Your task to perform on an android device: check out phone information Image 0: 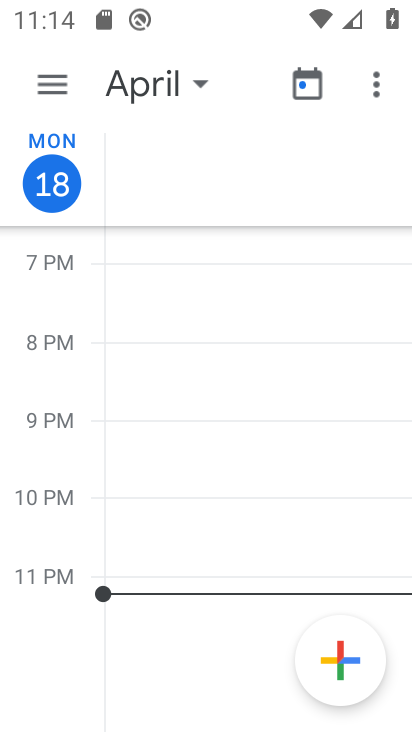
Step 0: press home button
Your task to perform on an android device: check out phone information Image 1: 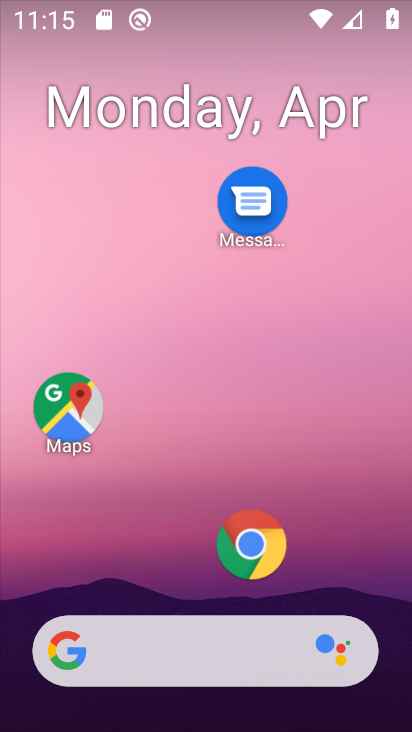
Step 1: drag from (185, 588) to (198, 63)
Your task to perform on an android device: check out phone information Image 2: 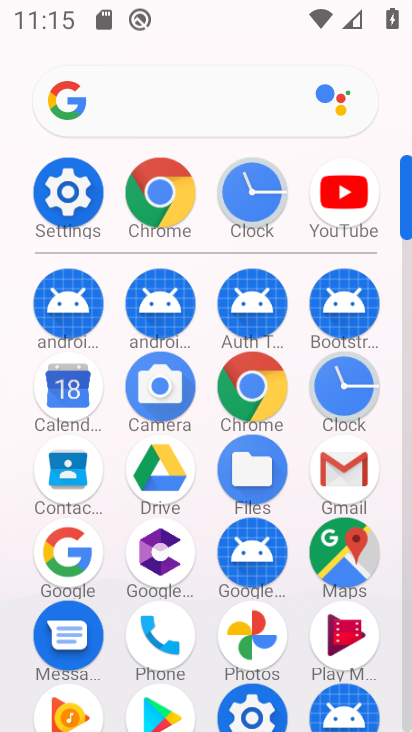
Step 2: click (251, 708)
Your task to perform on an android device: check out phone information Image 3: 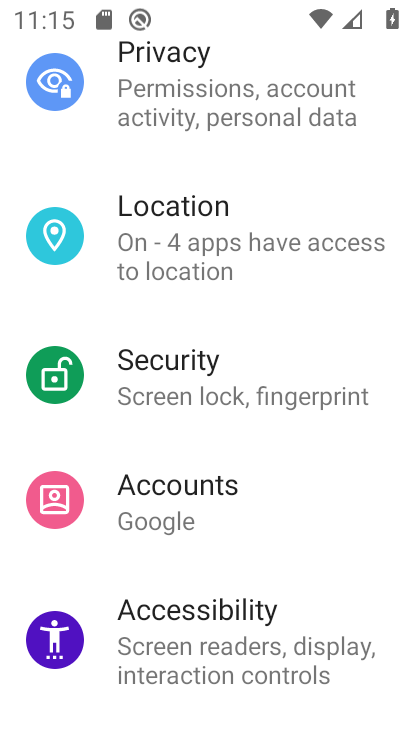
Step 3: drag from (202, 636) to (221, 192)
Your task to perform on an android device: check out phone information Image 4: 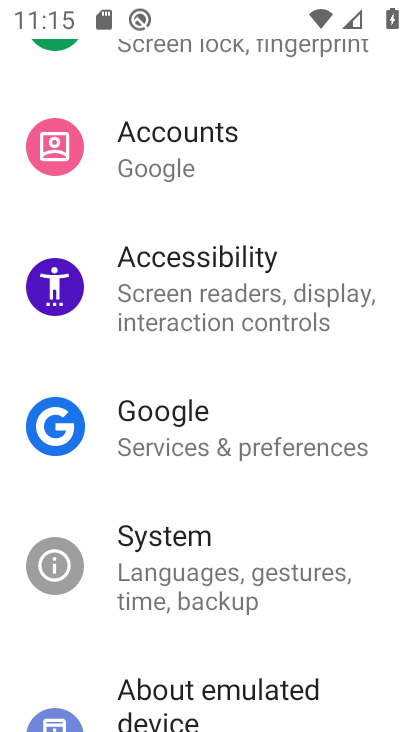
Step 4: click (214, 691)
Your task to perform on an android device: check out phone information Image 5: 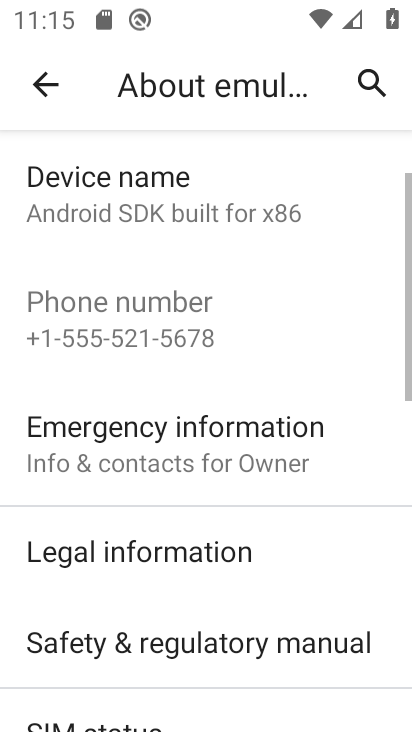
Step 5: task complete